Your task to perform on an android device: change notification settings in the gmail app Image 0: 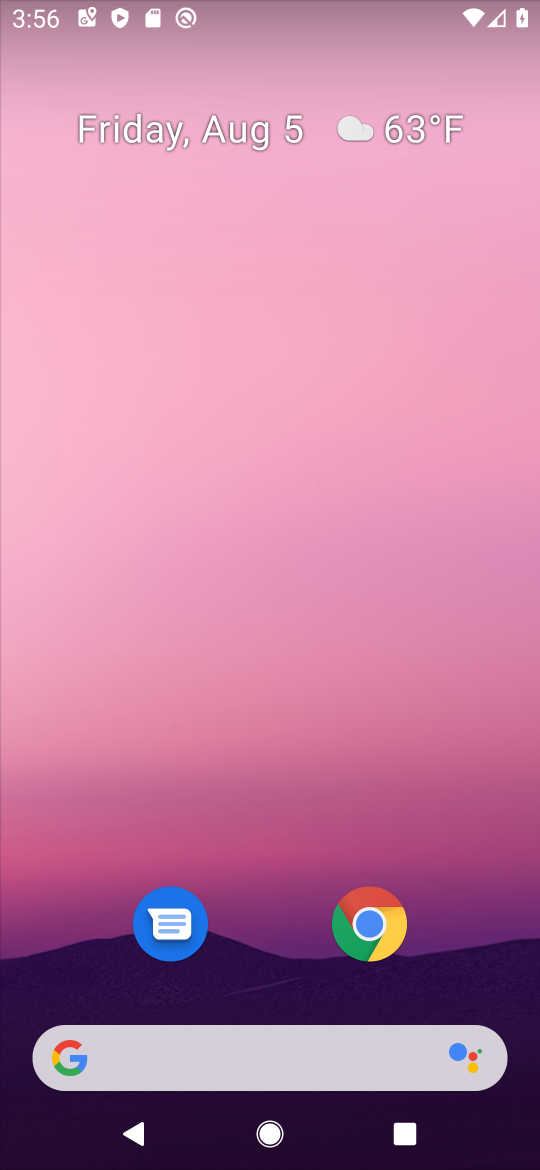
Step 0: drag from (315, 925) to (309, 192)
Your task to perform on an android device: change notification settings in the gmail app Image 1: 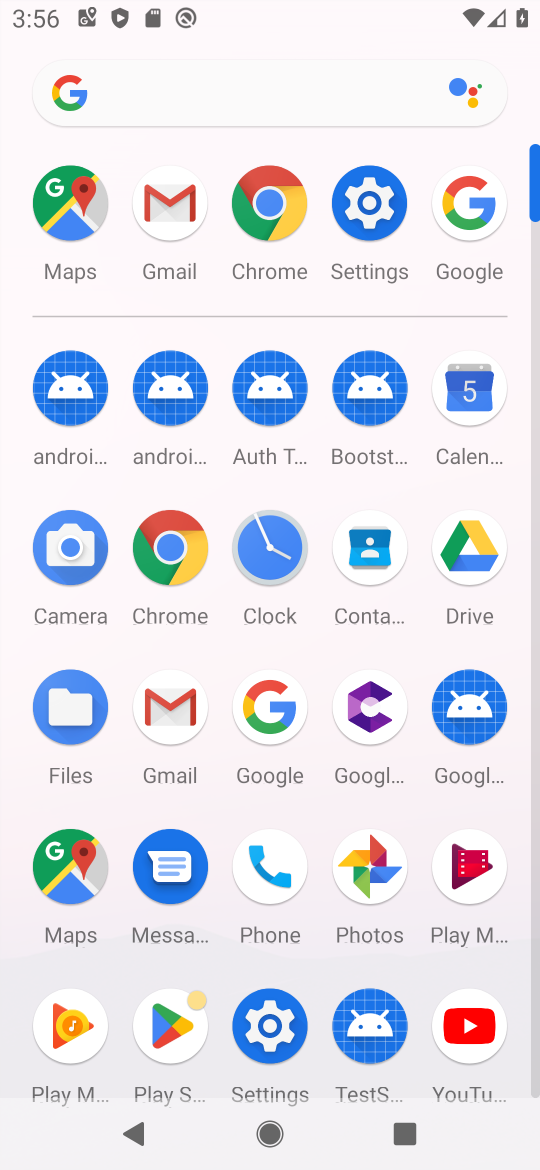
Step 1: click (187, 726)
Your task to perform on an android device: change notification settings in the gmail app Image 2: 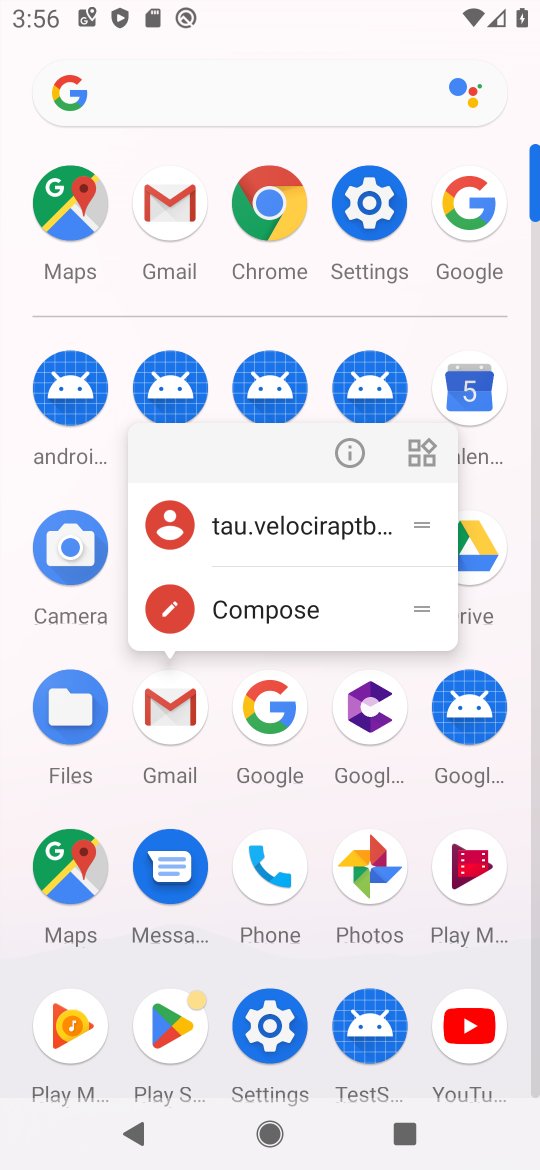
Step 2: click (176, 717)
Your task to perform on an android device: change notification settings in the gmail app Image 3: 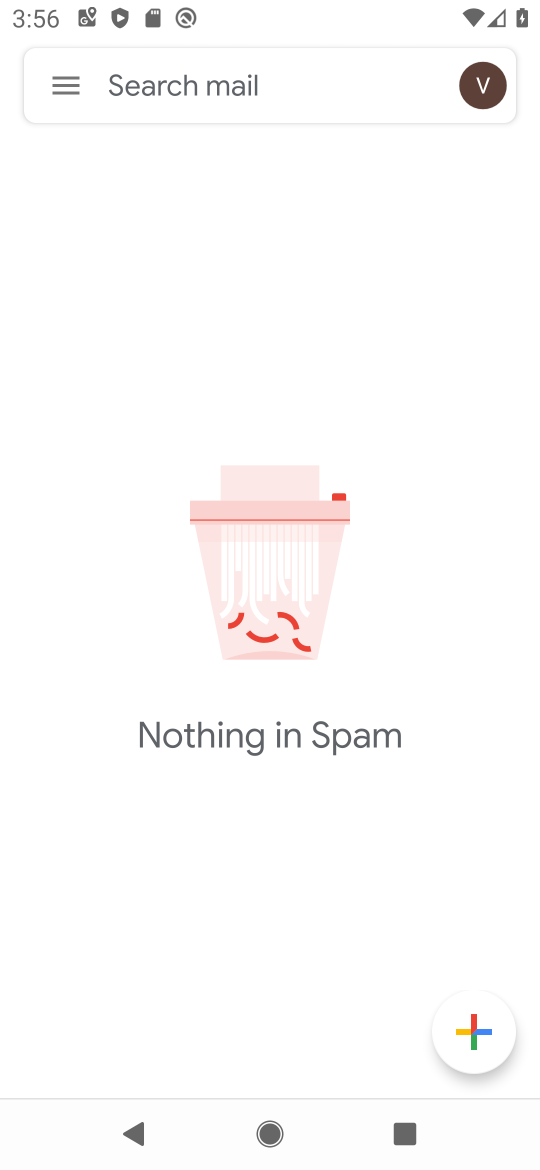
Step 3: click (69, 101)
Your task to perform on an android device: change notification settings in the gmail app Image 4: 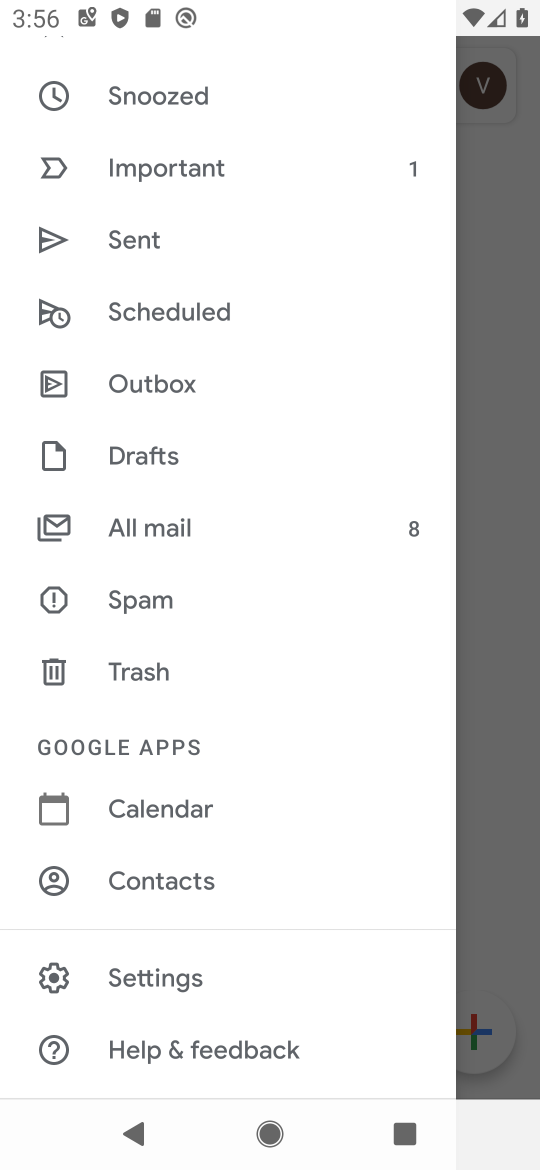
Step 4: click (180, 988)
Your task to perform on an android device: change notification settings in the gmail app Image 5: 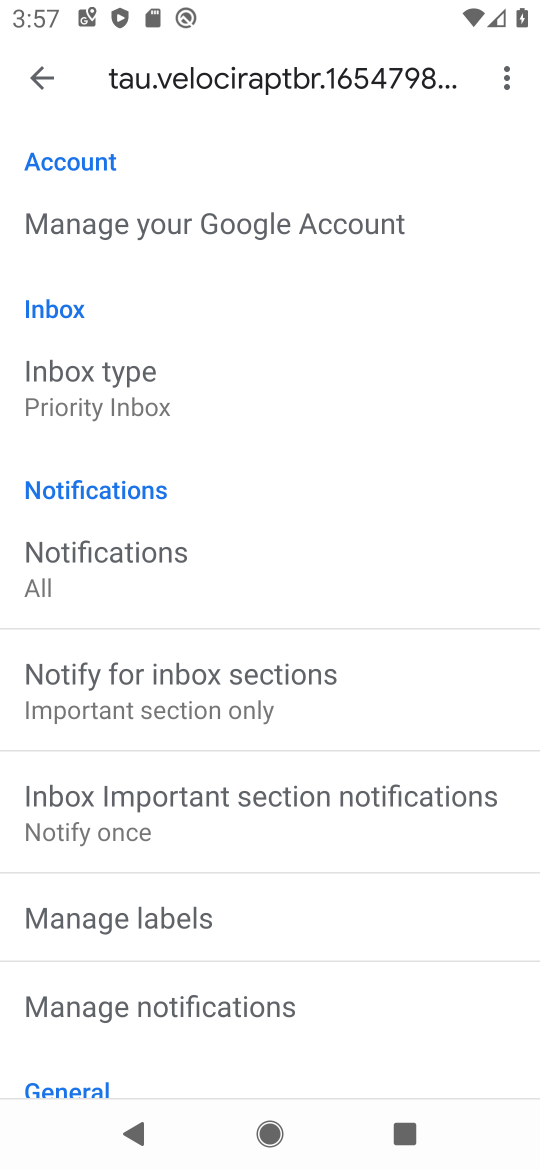
Step 5: drag from (241, 268) to (286, 900)
Your task to perform on an android device: change notification settings in the gmail app Image 6: 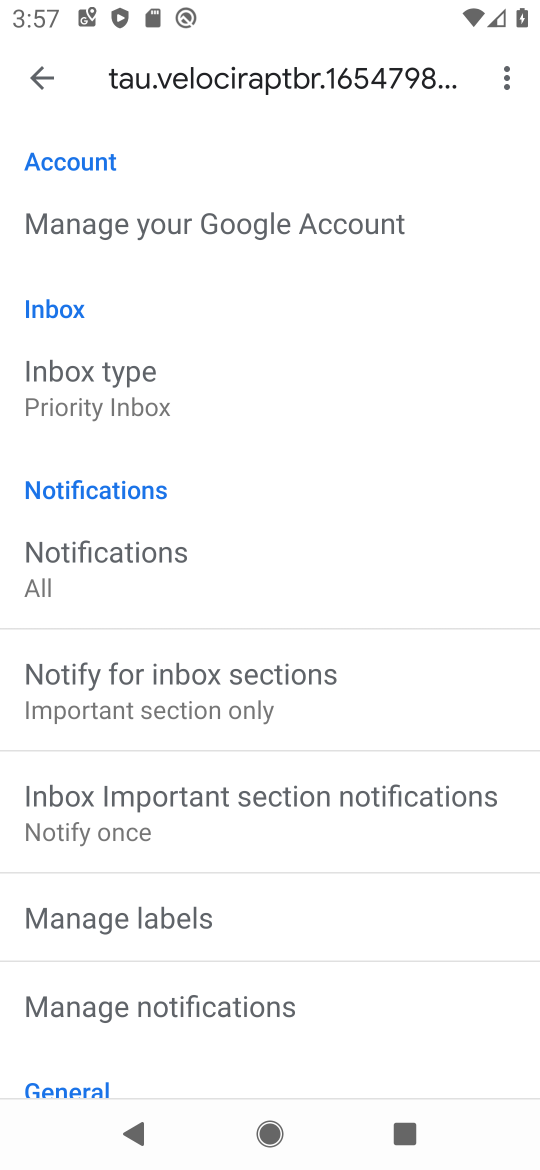
Step 6: drag from (240, 967) to (197, 660)
Your task to perform on an android device: change notification settings in the gmail app Image 7: 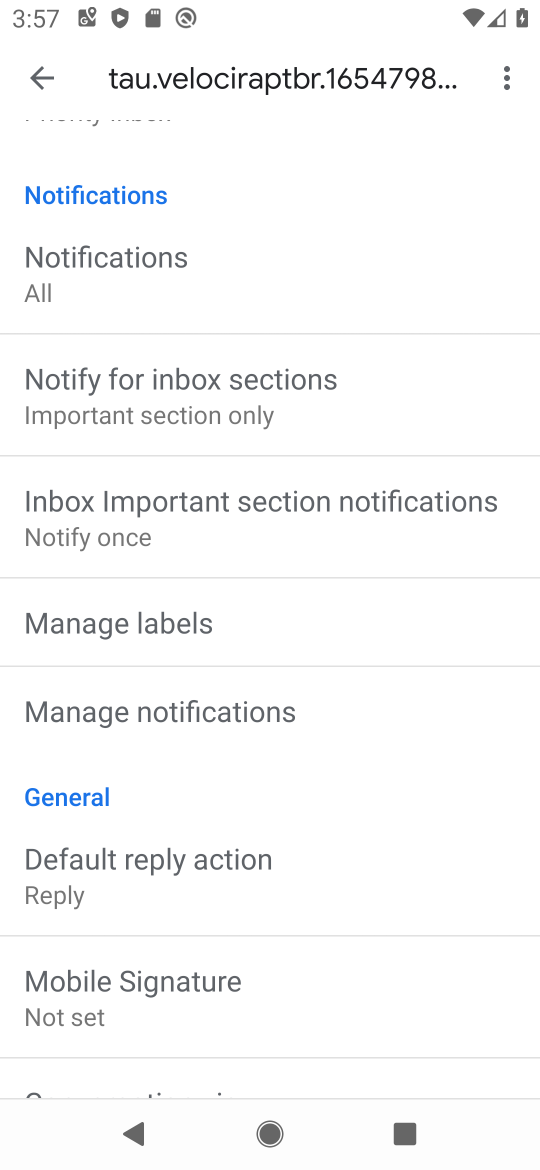
Step 7: click (236, 697)
Your task to perform on an android device: change notification settings in the gmail app Image 8: 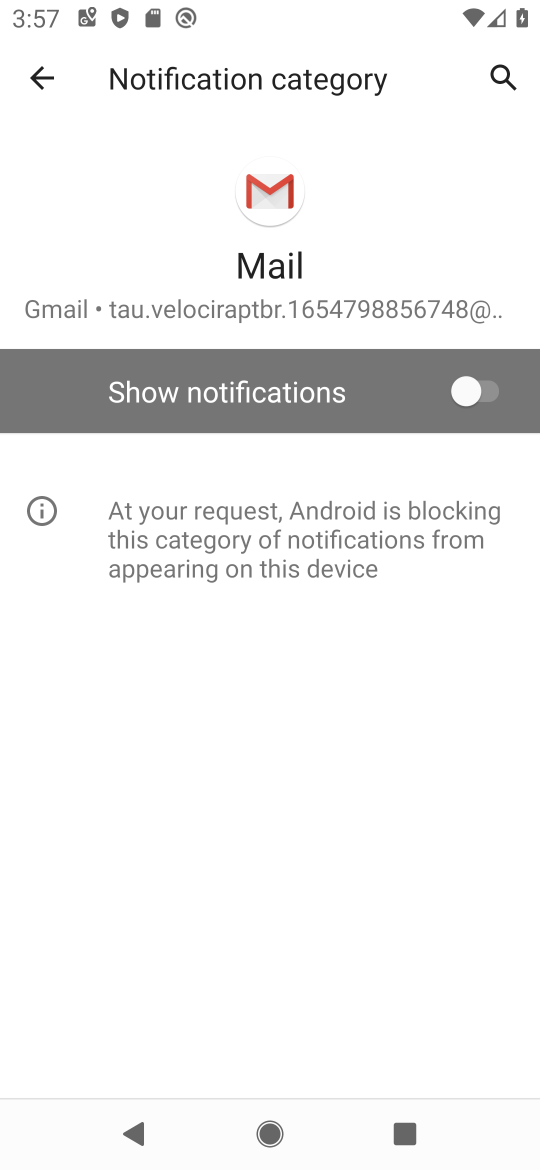
Step 8: click (472, 405)
Your task to perform on an android device: change notification settings in the gmail app Image 9: 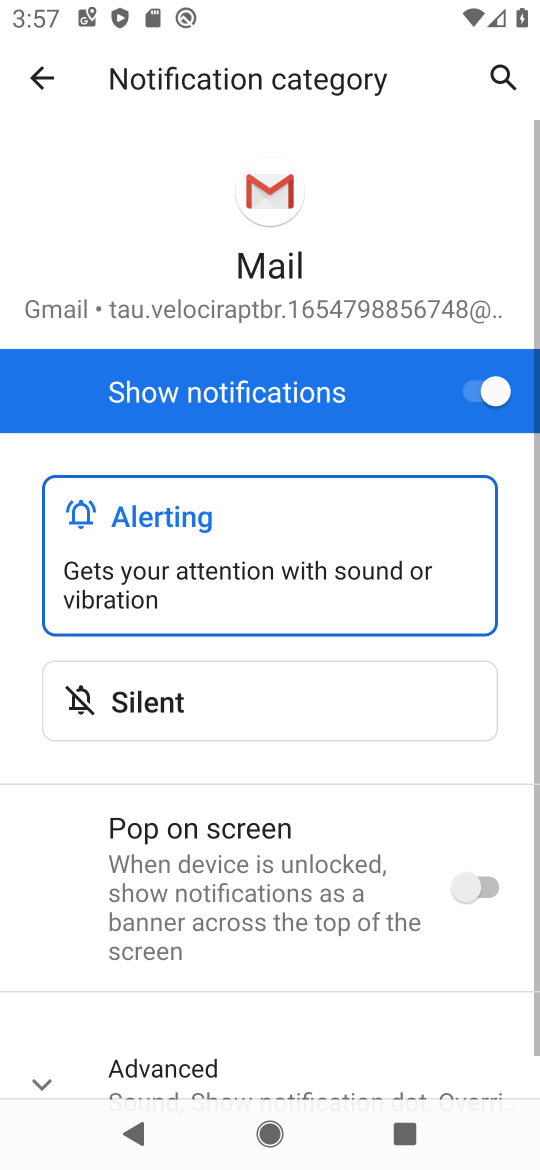
Step 9: task complete